Your task to perform on an android device: change your default location settings in chrome Image 0: 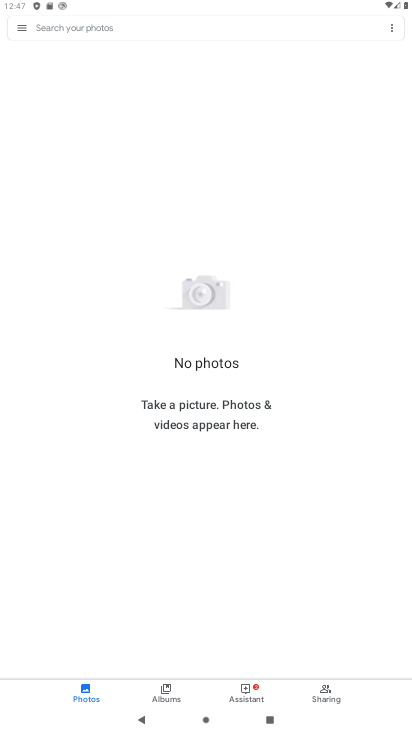
Step 0: press home button
Your task to perform on an android device: change your default location settings in chrome Image 1: 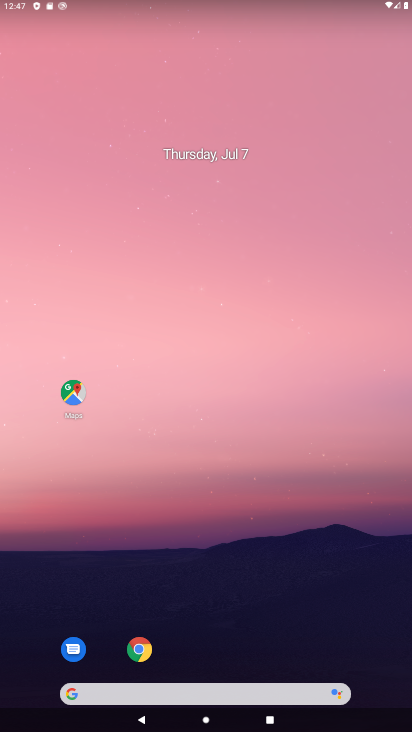
Step 1: drag from (206, 661) to (156, 108)
Your task to perform on an android device: change your default location settings in chrome Image 2: 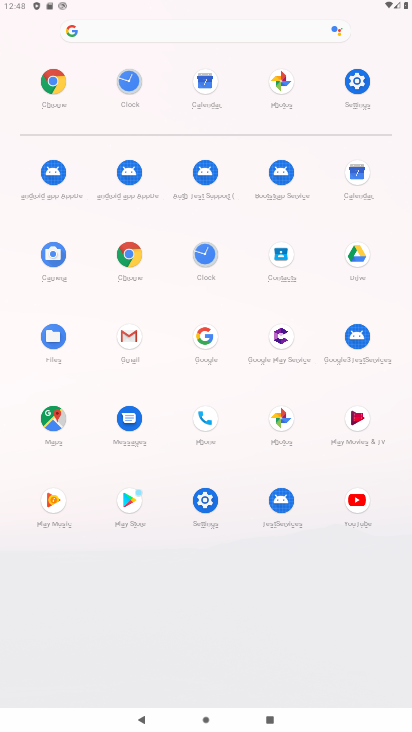
Step 2: click (123, 247)
Your task to perform on an android device: change your default location settings in chrome Image 3: 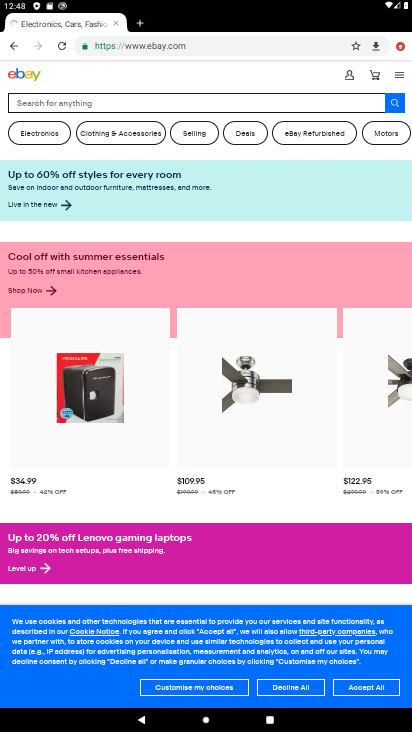
Step 3: click (396, 41)
Your task to perform on an android device: change your default location settings in chrome Image 4: 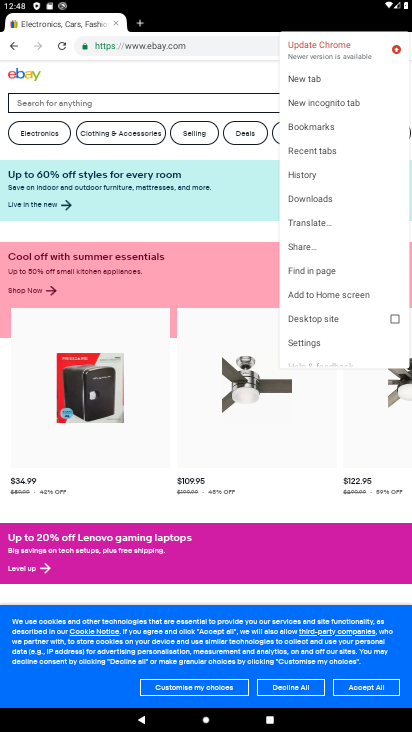
Step 4: click (313, 346)
Your task to perform on an android device: change your default location settings in chrome Image 5: 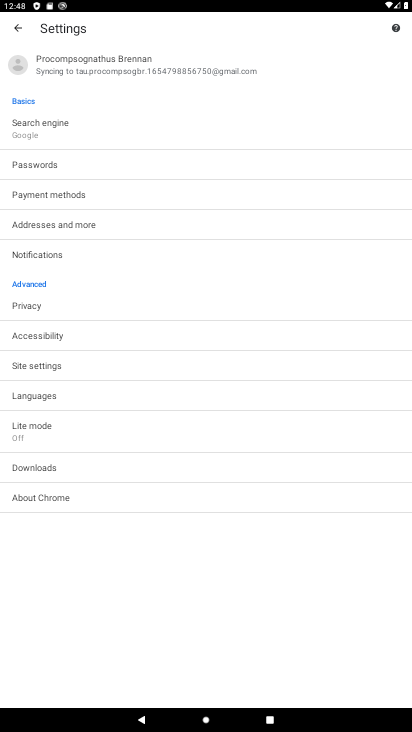
Step 5: click (41, 394)
Your task to perform on an android device: change your default location settings in chrome Image 6: 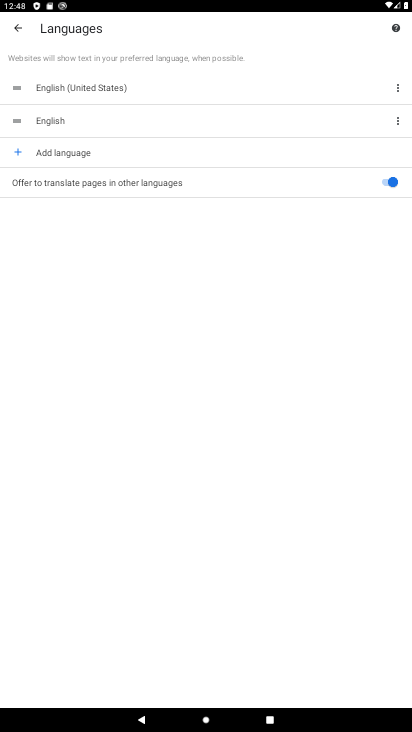
Step 6: click (375, 188)
Your task to perform on an android device: change your default location settings in chrome Image 7: 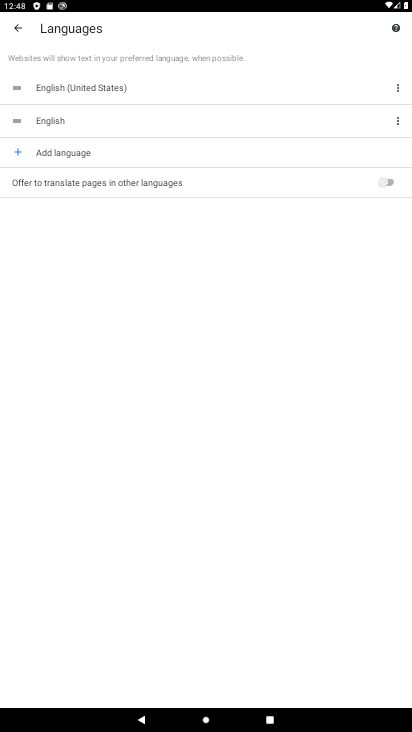
Step 7: task complete